Your task to perform on an android device: Open ESPN.com Image 0: 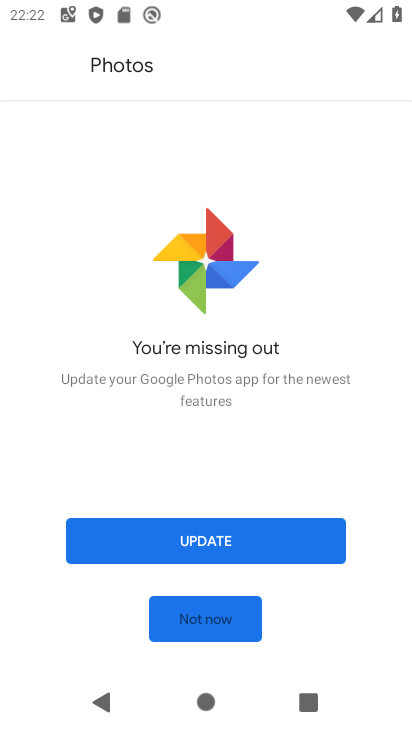
Step 0: press home button
Your task to perform on an android device: Open ESPN.com Image 1: 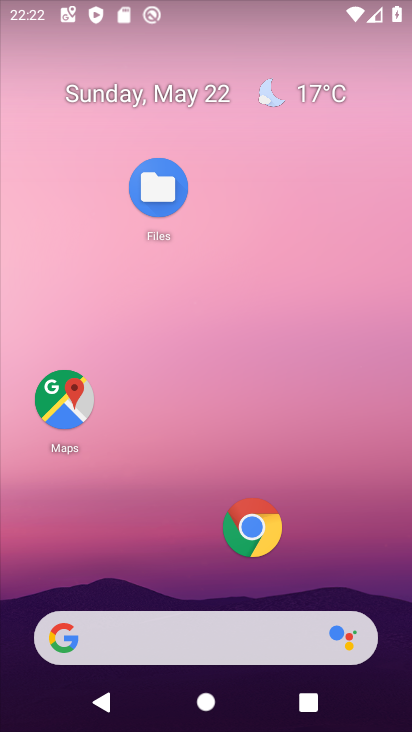
Step 1: click (260, 527)
Your task to perform on an android device: Open ESPN.com Image 2: 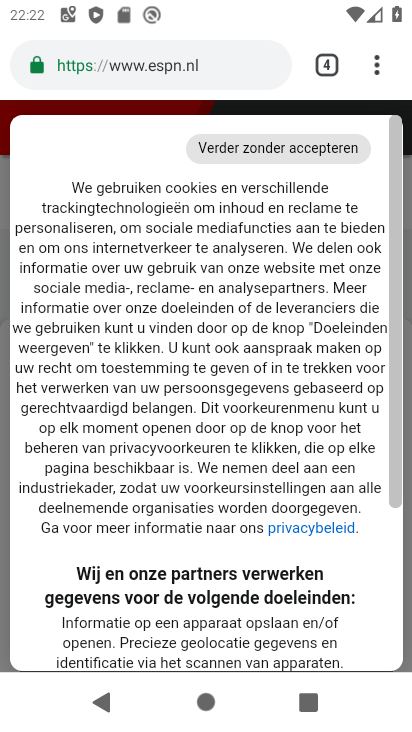
Step 2: click (379, 59)
Your task to perform on an android device: Open ESPN.com Image 3: 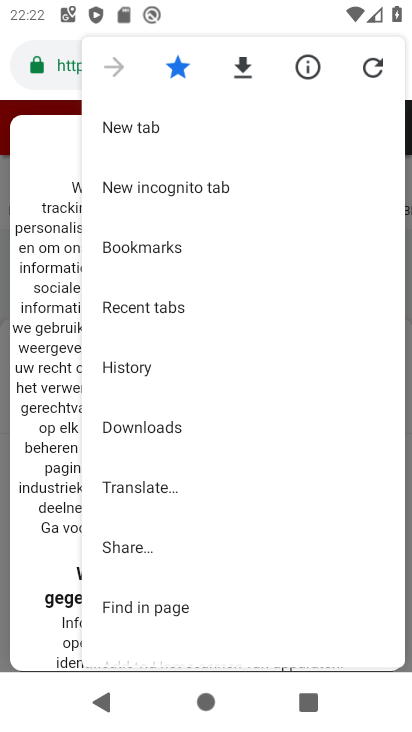
Step 3: click (141, 121)
Your task to perform on an android device: Open ESPN.com Image 4: 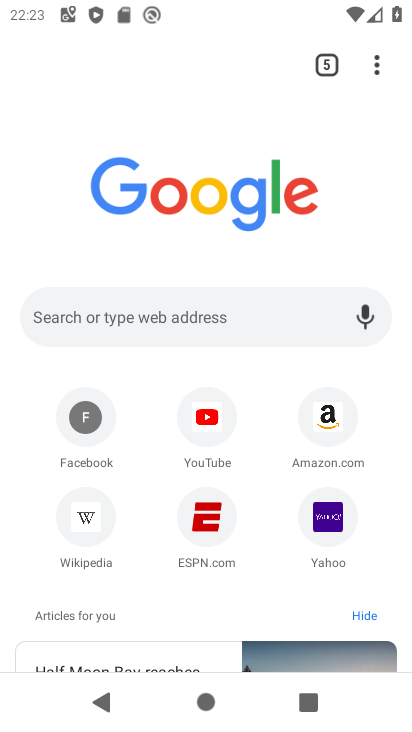
Step 4: click (200, 499)
Your task to perform on an android device: Open ESPN.com Image 5: 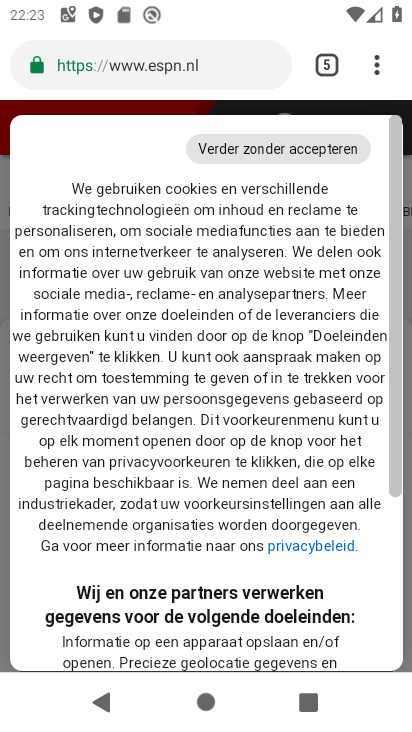
Step 5: task complete